Your task to perform on an android device: Search for sushi restaurants on Maps Image 0: 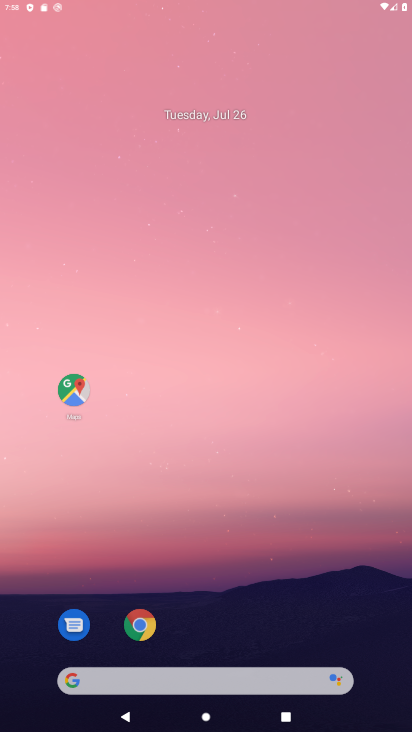
Step 0: press home button
Your task to perform on an android device: Search for sushi restaurants on Maps Image 1: 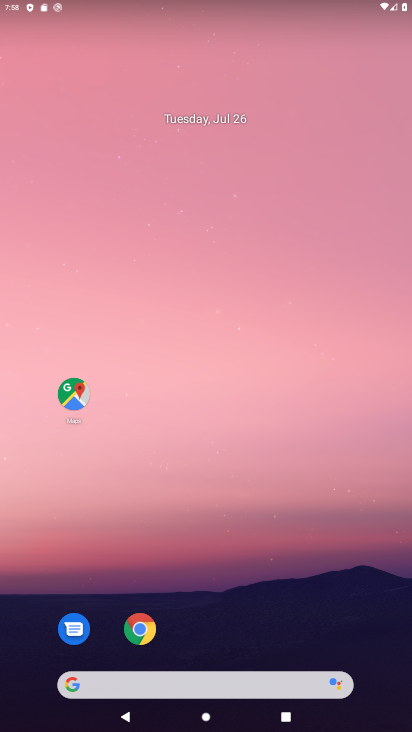
Step 1: drag from (208, 654) to (211, 58)
Your task to perform on an android device: Search for sushi restaurants on Maps Image 2: 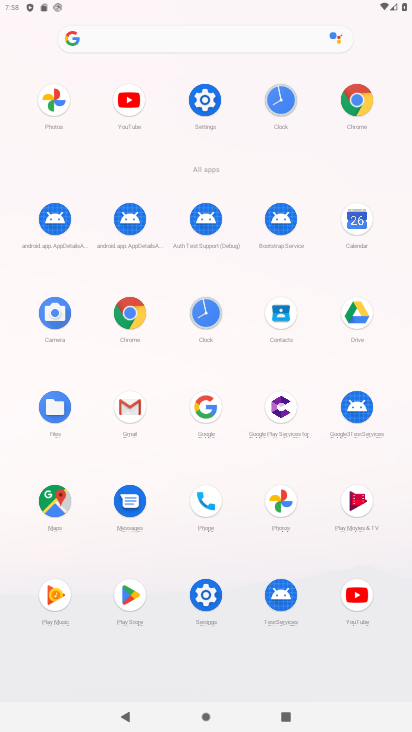
Step 2: click (54, 494)
Your task to perform on an android device: Search for sushi restaurants on Maps Image 3: 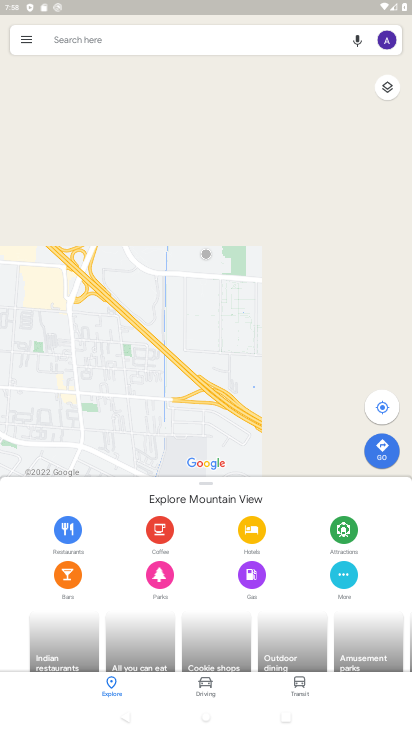
Step 3: click (78, 24)
Your task to perform on an android device: Search for sushi restaurants on Maps Image 4: 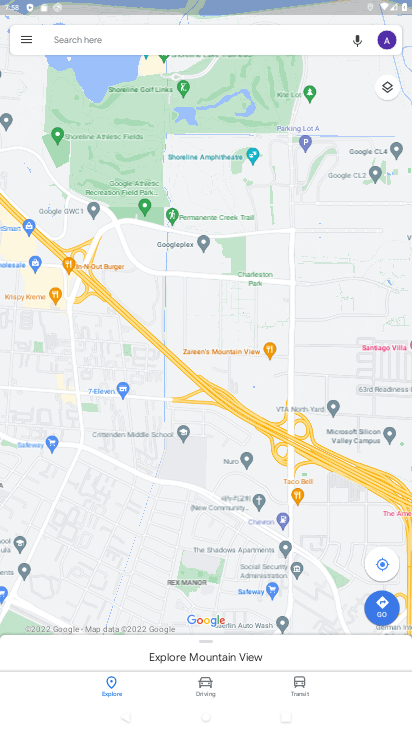
Step 4: click (78, 31)
Your task to perform on an android device: Search for sushi restaurants on Maps Image 5: 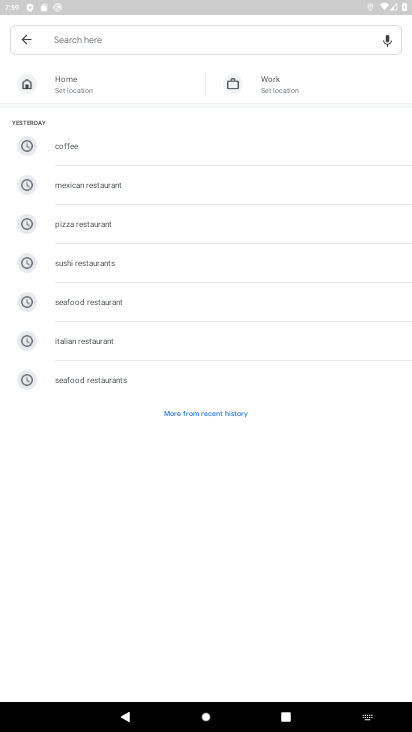
Step 5: click (81, 264)
Your task to perform on an android device: Search for sushi restaurants on Maps Image 6: 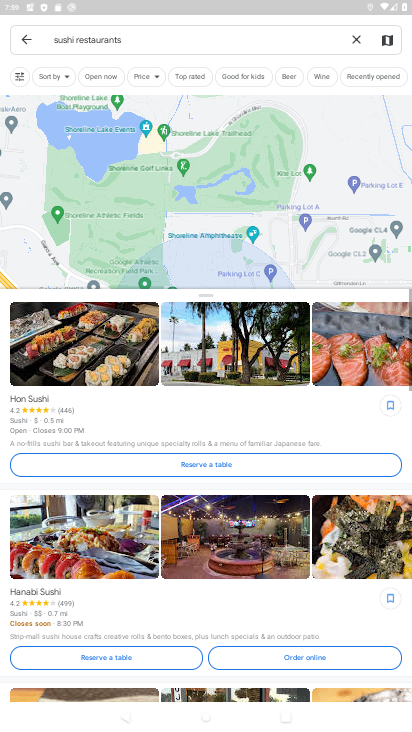
Step 6: task complete